Your task to perform on an android device: Open the phone app and click the voicemail tab. Image 0: 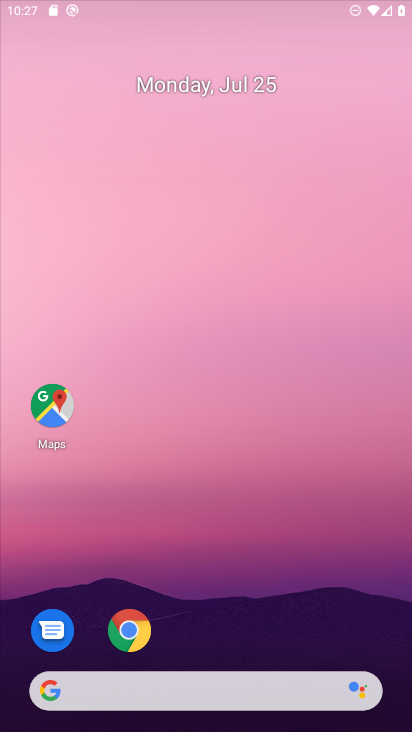
Step 0: drag from (333, 630) to (310, 70)
Your task to perform on an android device: Open the phone app and click the voicemail tab. Image 1: 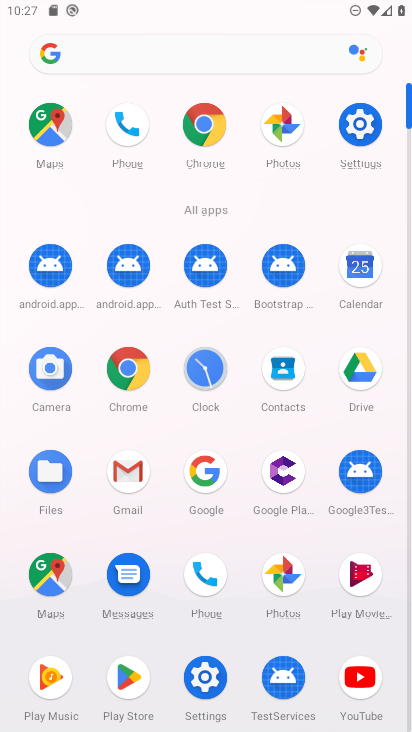
Step 1: click (207, 579)
Your task to perform on an android device: Open the phone app and click the voicemail tab. Image 2: 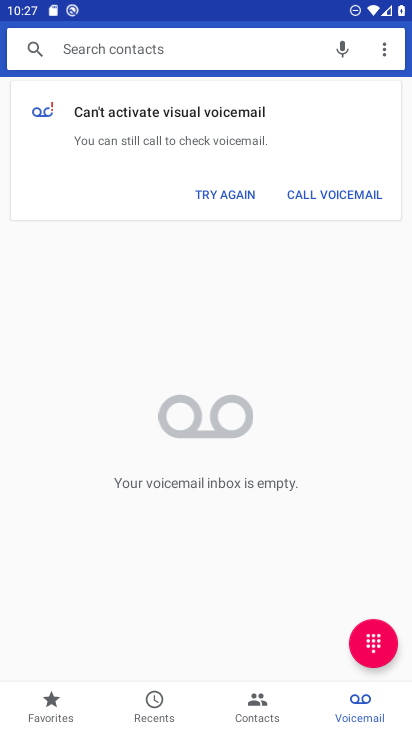
Step 2: task complete